Your task to perform on an android device: toggle sleep mode Image 0: 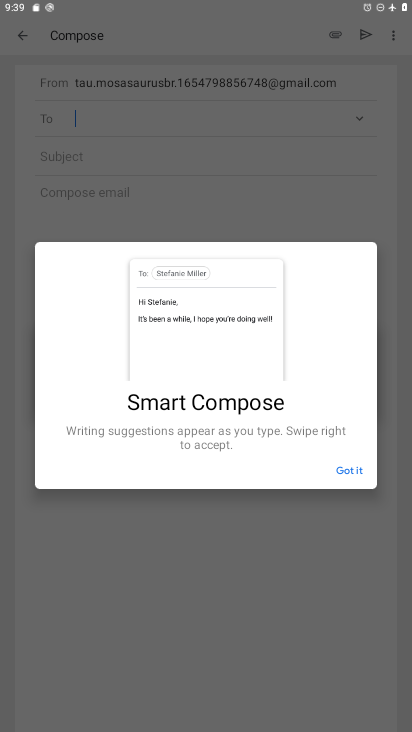
Step 0: press home button
Your task to perform on an android device: toggle sleep mode Image 1: 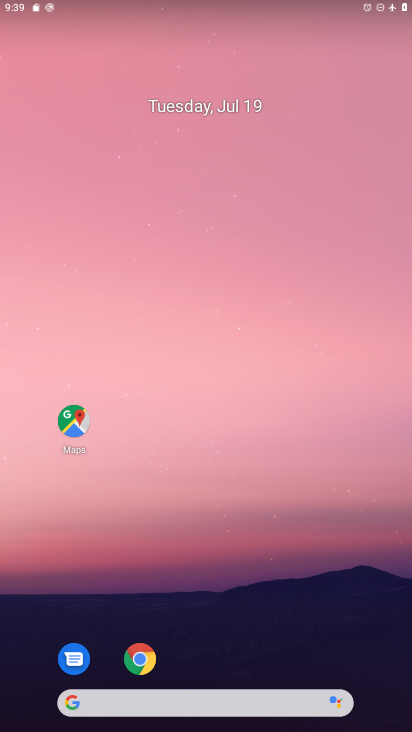
Step 1: click (265, 126)
Your task to perform on an android device: toggle sleep mode Image 2: 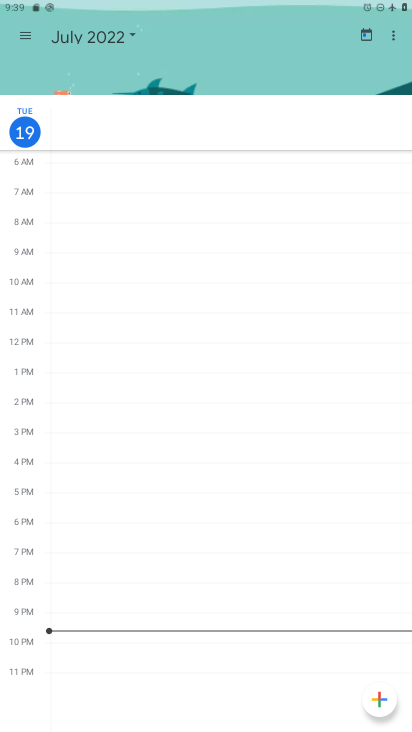
Step 2: drag from (186, 670) to (196, 517)
Your task to perform on an android device: toggle sleep mode Image 3: 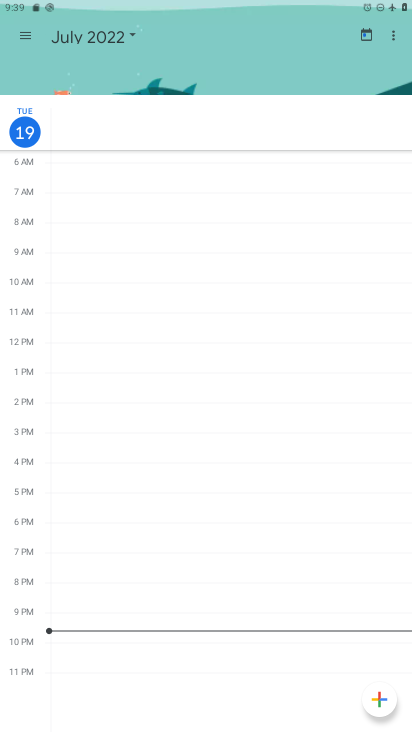
Step 3: press home button
Your task to perform on an android device: toggle sleep mode Image 4: 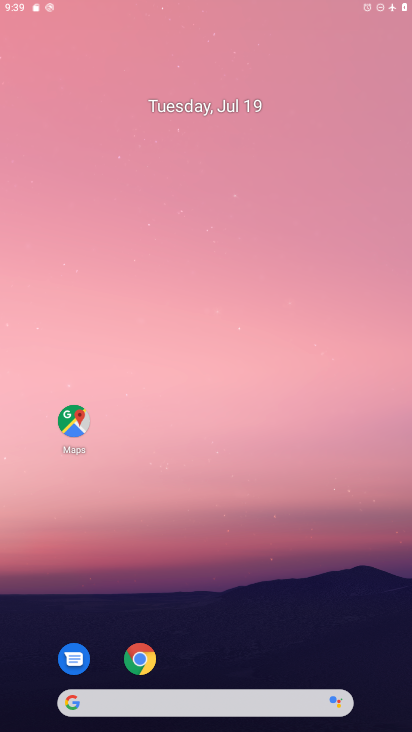
Step 4: drag from (230, 682) to (242, 476)
Your task to perform on an android device: toggle sleep mode Image 5: 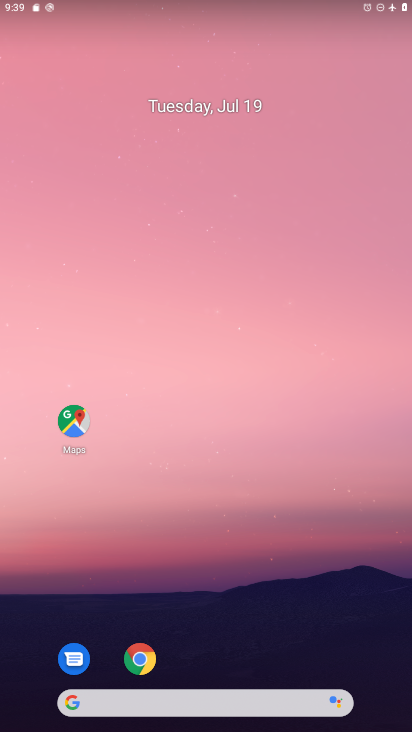
Step 5: drag from (218, 558) to (218, 229)
Your task to perform on an android device: toggle sleep mode Image 6: 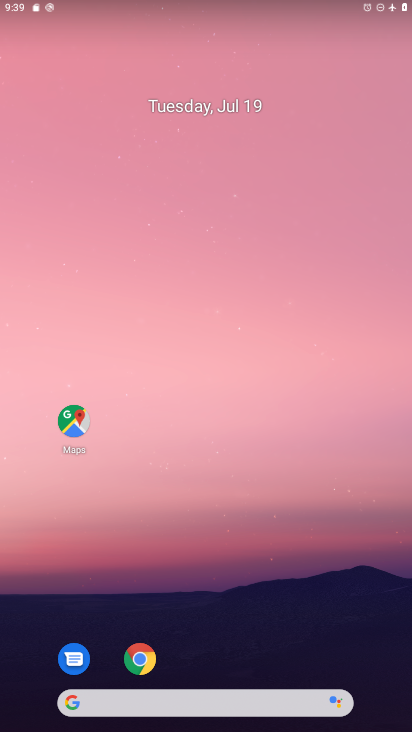
Step 6: drag from (231, 628) to (265, 311)
Your task to perform on an android device: toggle sleep mode Image 7: 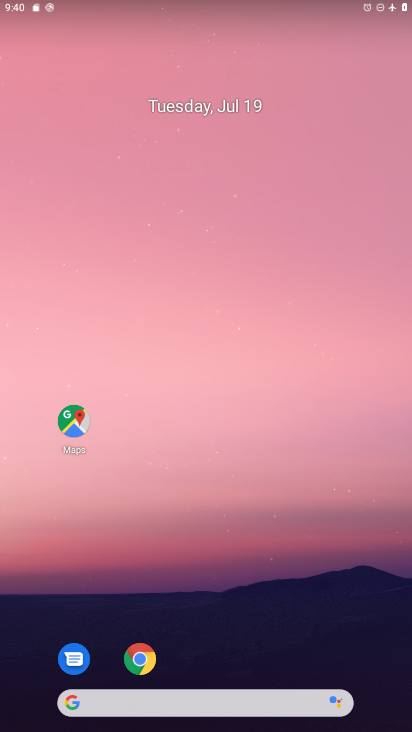
Step 7: drag from (193, 681) to (211, 228)
Your task to perform on an android device: toggle sleep mode Image 8: 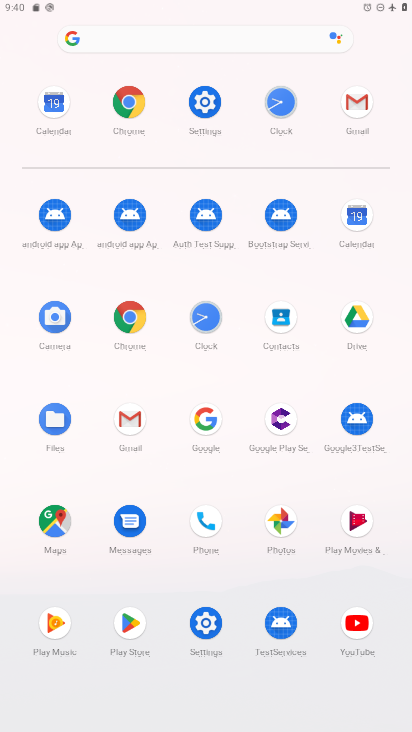
Step 8: click (200, 102)
Your task to perform on an android device: toggle sleep mode Image 9: 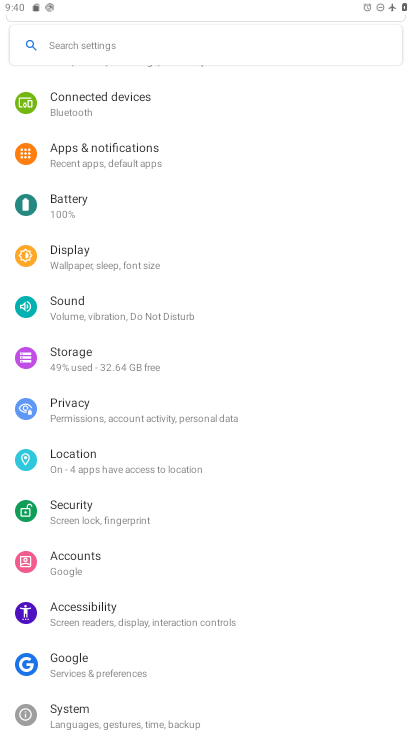
Step 9: task complete